Your task to perform on an android device: Search for sushi restaurants on Maps Image 0: 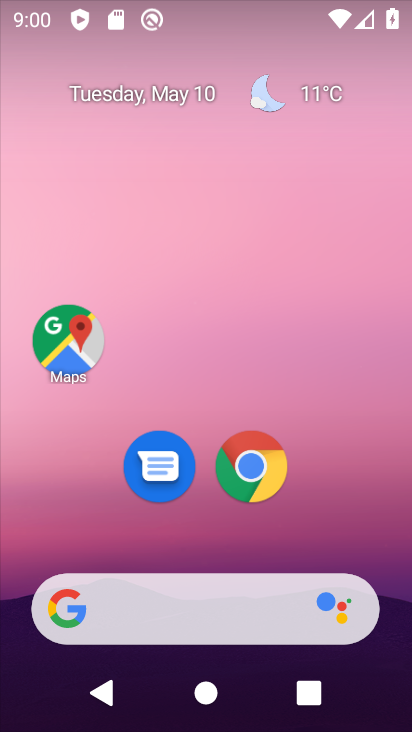
Step 0: drag from (340, 469) to (292, 87)
Your task to perform on an android device: Search for sushi restaurants on Maps Image 1: 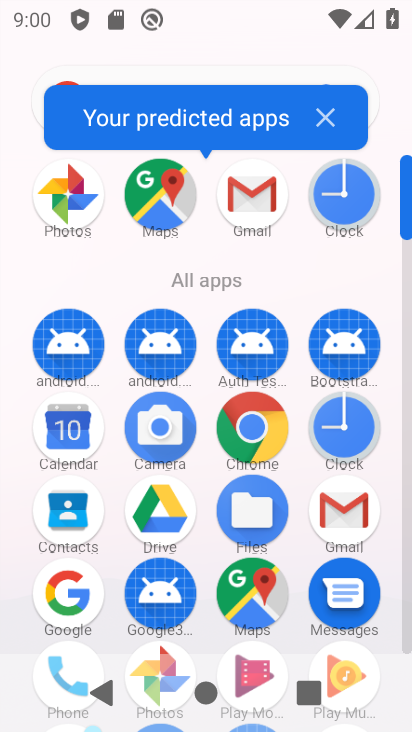
Step 1: click (174, 204)
Your task to perform on an android device: Search for sushi restaurants on Maps Image 2: 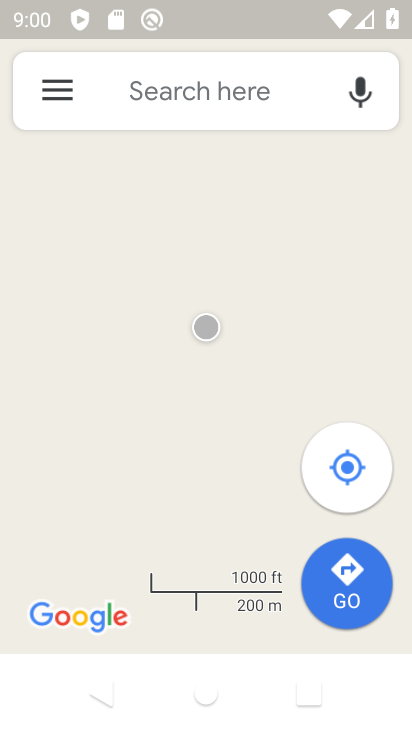
Step 2: click (202, 86)
Your task to perform on an android device: Search for sushi restaurants on Maps Image 3: 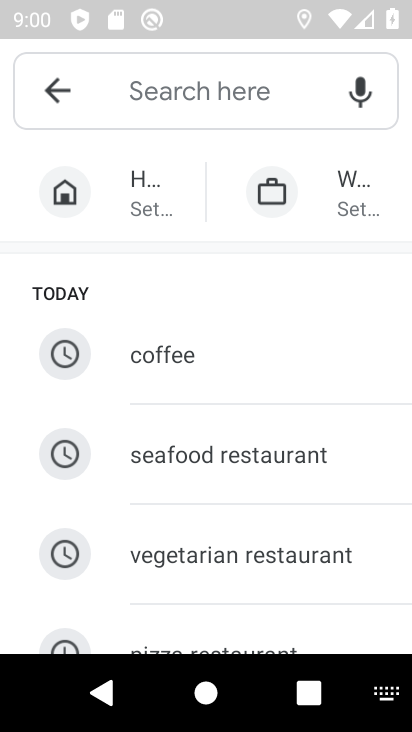
Step 3: type "sushi resturenyts"
Your task to perform on an android device: Search for sushi restaurants on Maps Image 4: 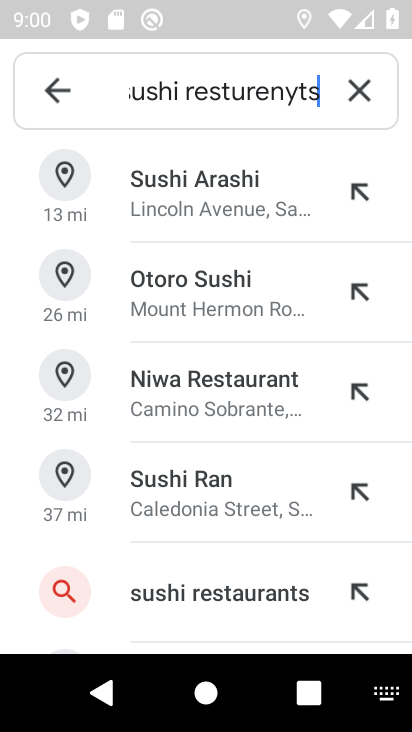
Step 4: click (177, 196)
Your task to perform on an android device: Search for sushi restaurants on Maps Image 5: 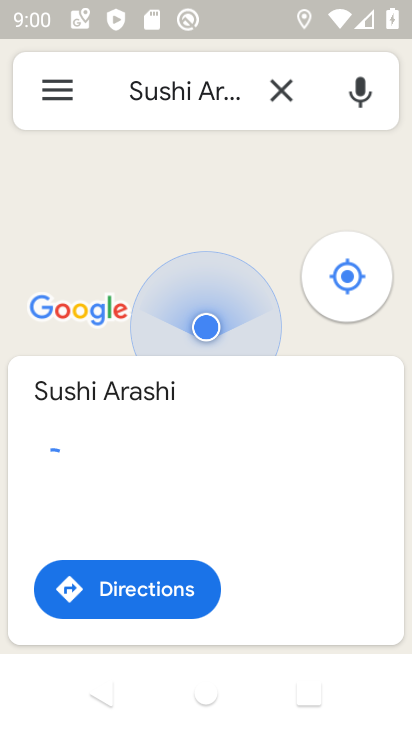
Step 5: task complete